Your task to perform on an android device: Open sound settings Image 0: 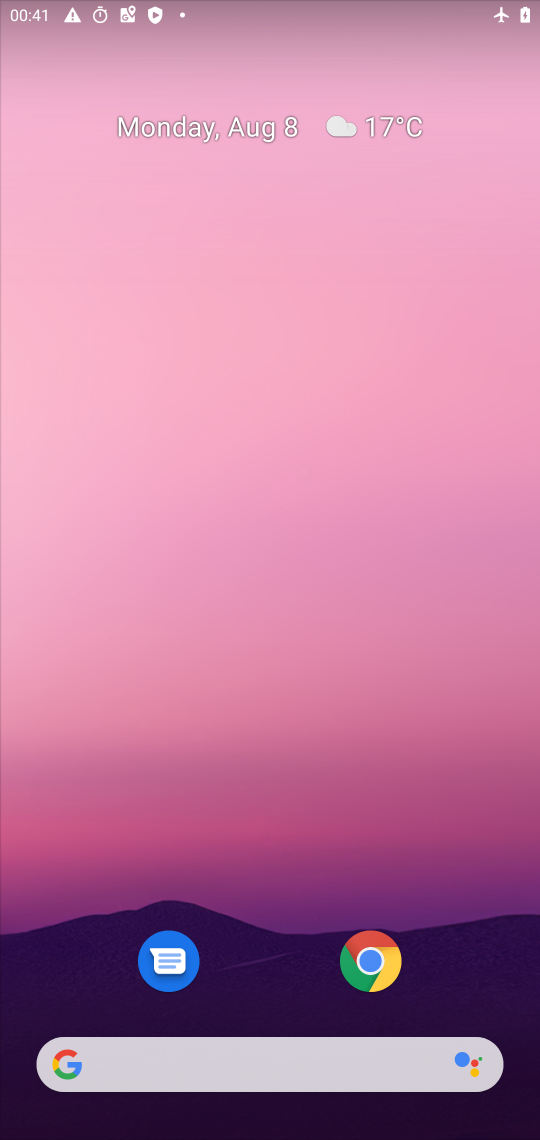
Step 0: drag from (315, 1084) to (194, 62)
Your task to perform on an android device: Open sound settings Image 1: 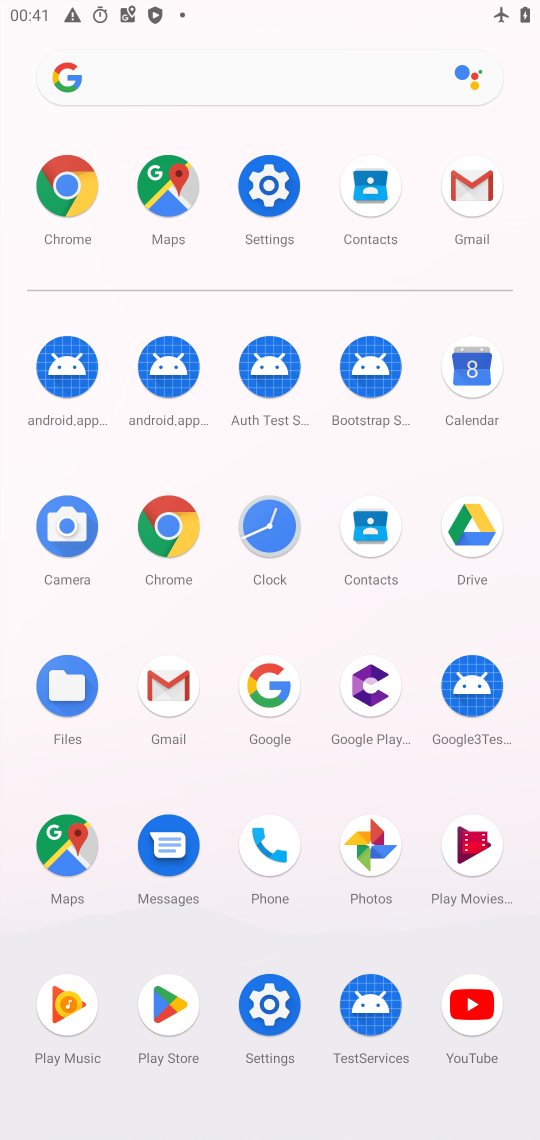
Step 1: click (274, 185)
Your task to perform on an android device: Open sound settings Image 2: 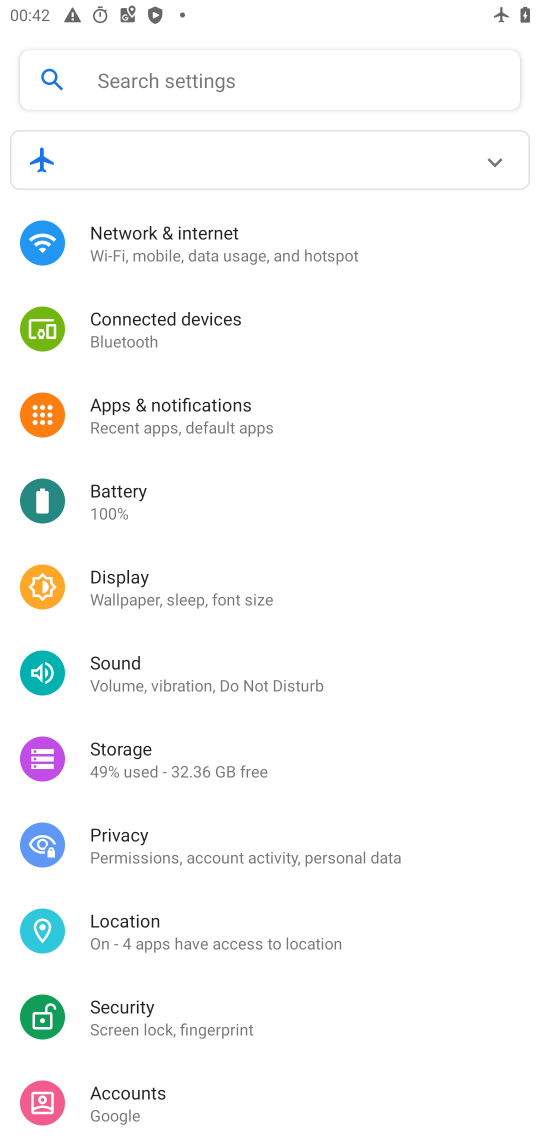
Step 2: click (114, 669)
Your task to perform on an android device: Open sound settings Image 3: 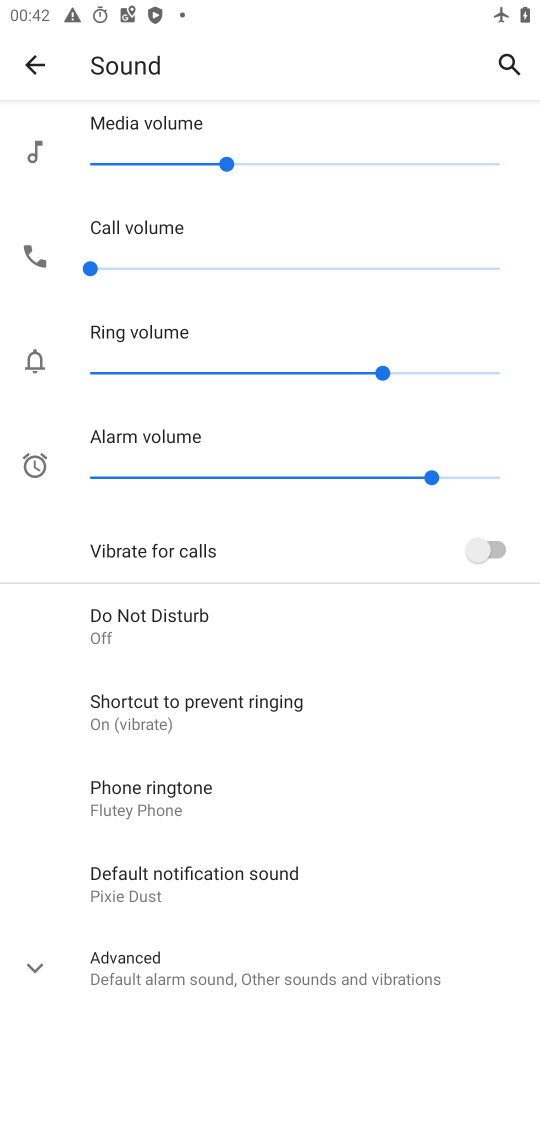
Step 3: task complete